Your task to perform on an android device: Open CNN.com Image 0: 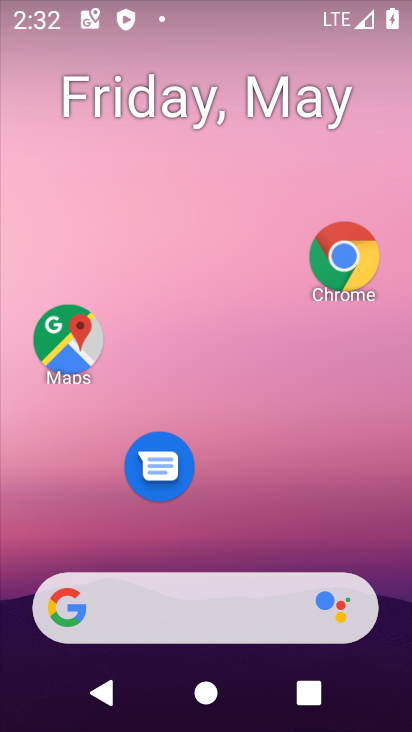
Step 0: click (340, 268)
Your task to perform on an android device: Open CNN.com Image 1: 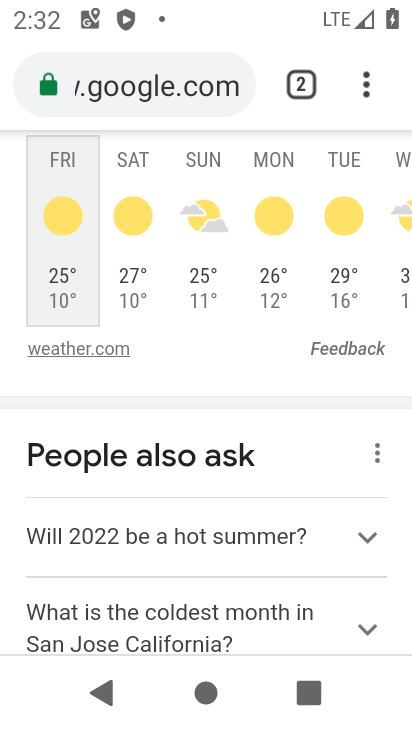
Step 1: click (134, 82)
Your task to perform on an android device: Open CNN.com Image 2: 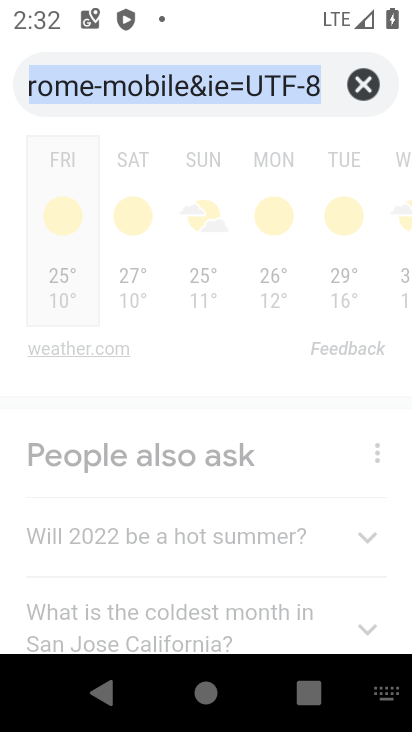
Step 2: click (355, 74)
Your task to perform on an android device: Open CNN.com Image 3: 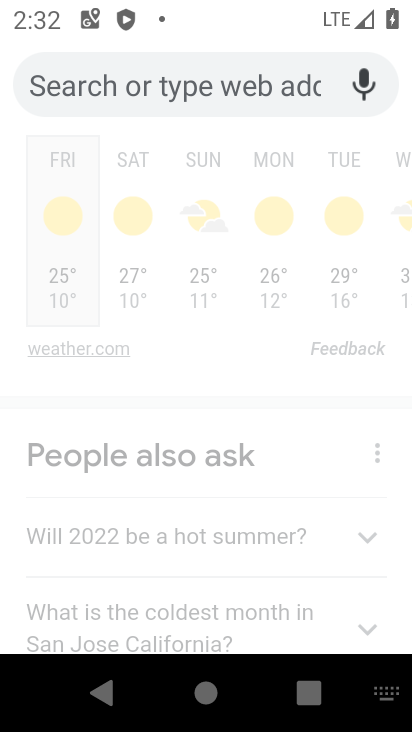
Step 3: type " CNN.com"
Your task to perform on an android device: Open CNN.com Image 4: 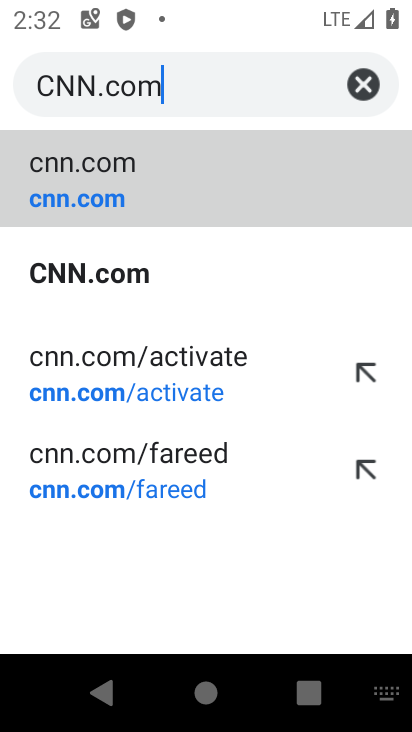
Step 4: click (96, 208)
Your task to perform on an android device: Open CNN.com Image 5: 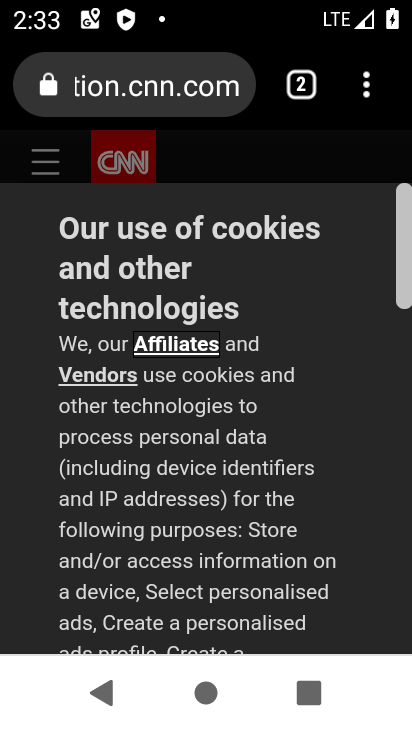
Step 5: task complete